Your task to perform on an android device: Search for vegetarian restaurants on Maps Image 0: 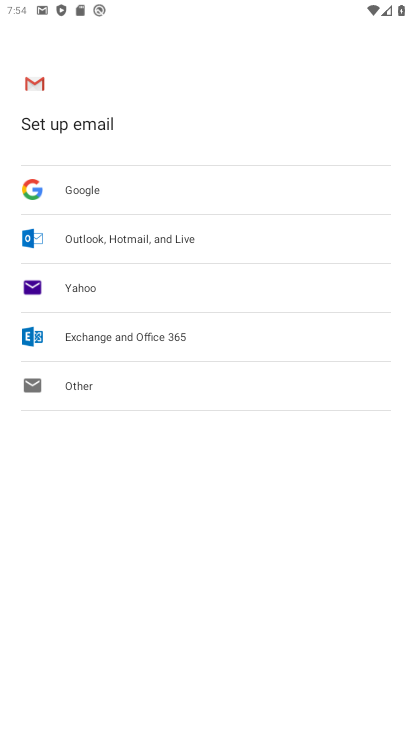
Step 0: press home button
Your task to perform on an android device: Search for vegetarian restaurants on Maps Image 1: 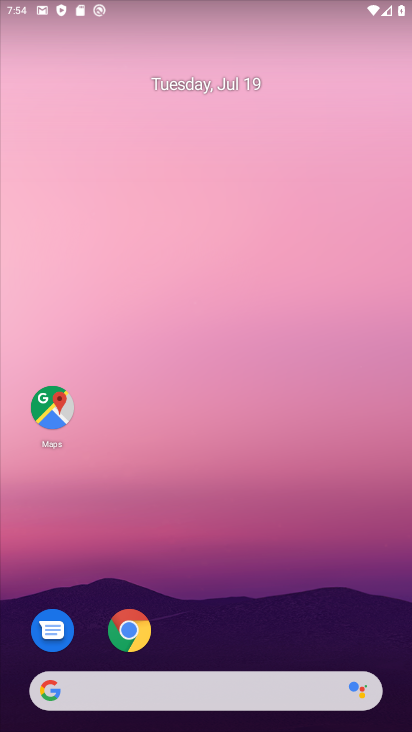
Step 1: click (50, 412)
Your task to perform on an android device: Search for vegetarian restaurants on Maps Image 2: 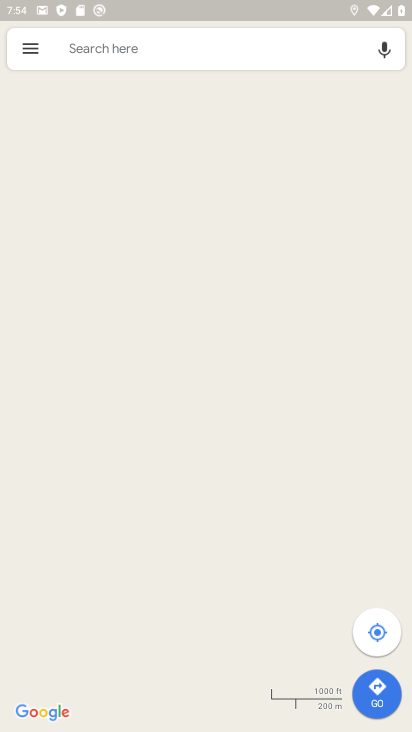
Step 2: click (118, 44)
Your task to perform on an android device: Search for vegetarian restaurants on Maps Image 3: 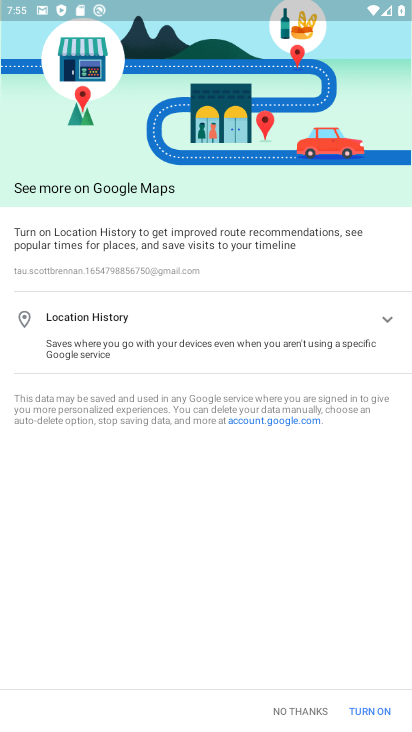
Step 3: type "v"
Your task to perform on an android device: Search for vegetarian restaurants on Maps Image 4: 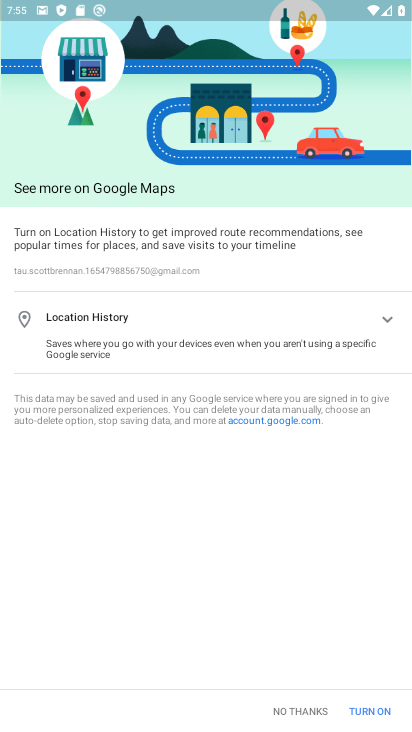
Step 4: click (312, 715)
Your task to perform on an android device: Search for vegetarian restaurants on Maps Image 5: 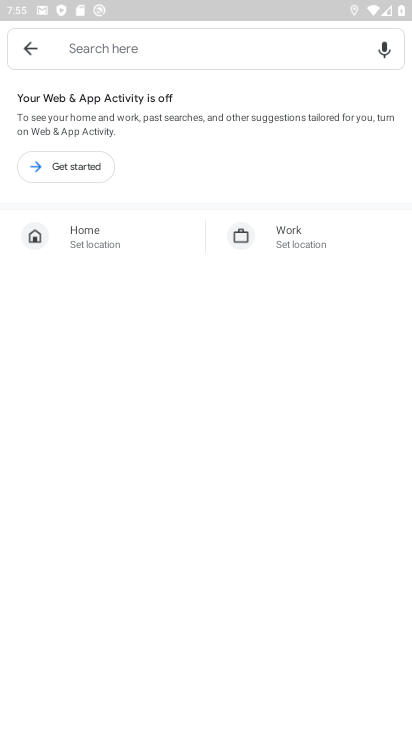
Step 5: click (28, 47)
Your task to perform on an android device: Search for vegetarian restaurants on Maps Image 6: 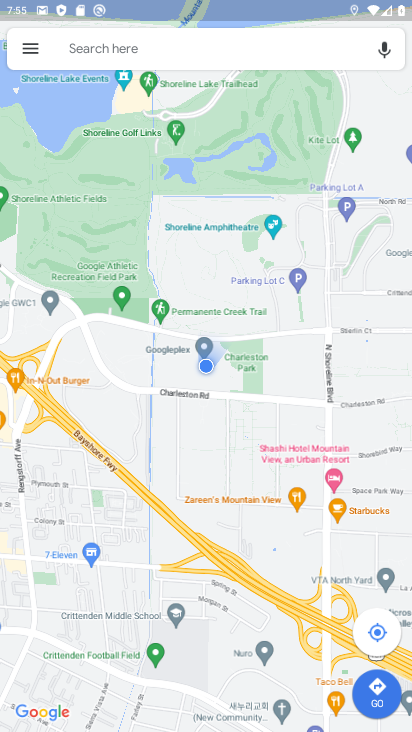
Step 6: click (183, 49)
Your task to perform on an android device: Search for vegetarian restaurants on Maps Image 7: 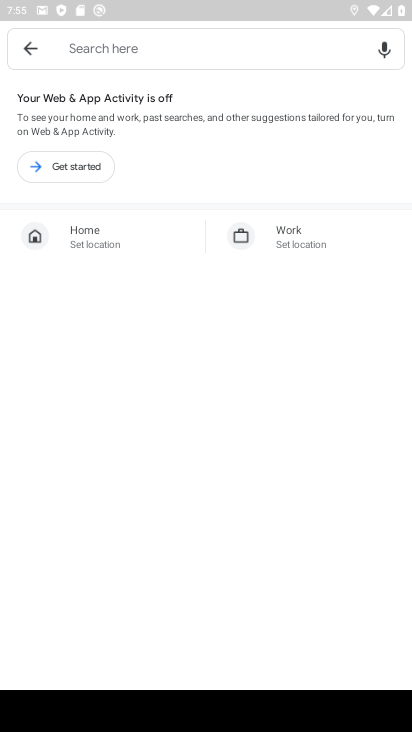
Step 7: type "vegetarian restaurants"
Your task to perform on an android device: Search for vegetarian restaurants on Maps Image 8: 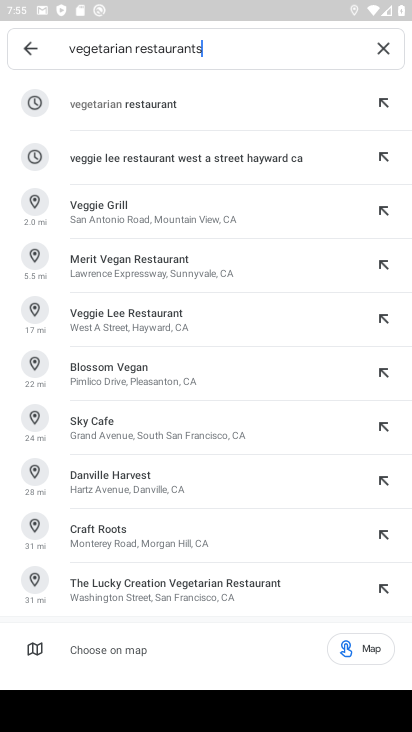
Step 8: click (137, 104)
Your task to perform on an android device: Search for vegetarian restaurants on Maps Image 9: 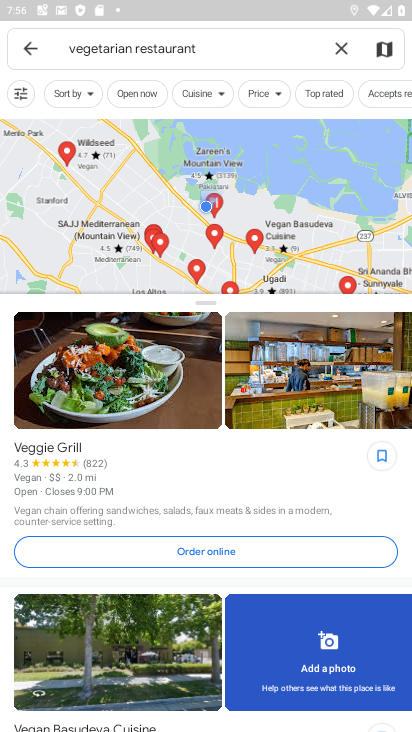
Step 9: task complete